Your task to perform on an android device: Open the calendar app, open the side menu, and click the "Day" option Image 0: 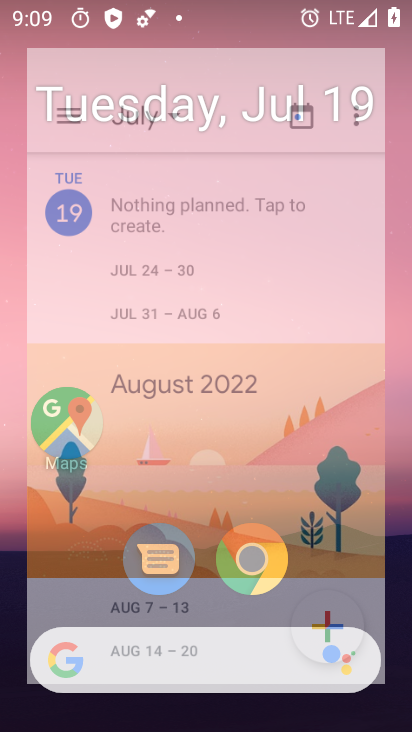
Step 0: drag from (382, 599) to (326, 104)
Your task to perform on an android device: Open the calendar app, open the side menu, and click the "Day" option Image 1: 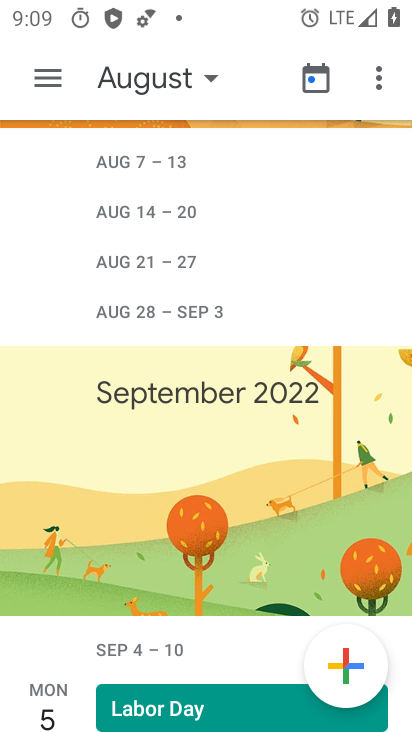
Step 1: press home button
Your task to perform on an android device: Open the calendar app, open the side menu, and click the "Day" option Image 2: 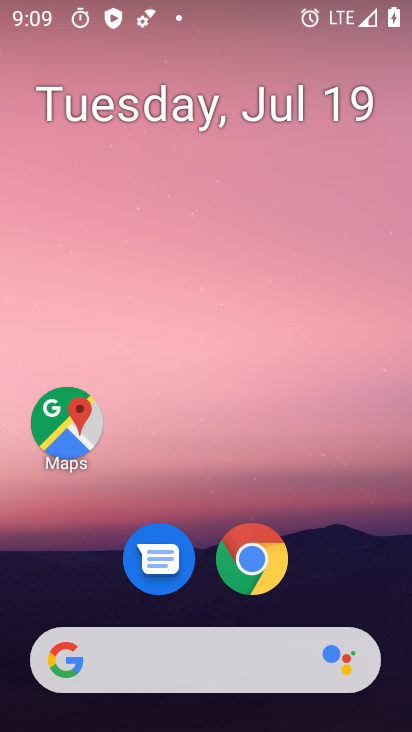
Step 2: drag from (394, 568) to (328, 123)
Your task to perform on an android device: Open the calendar app, open the side menu, and click the "Day" option Image 3: 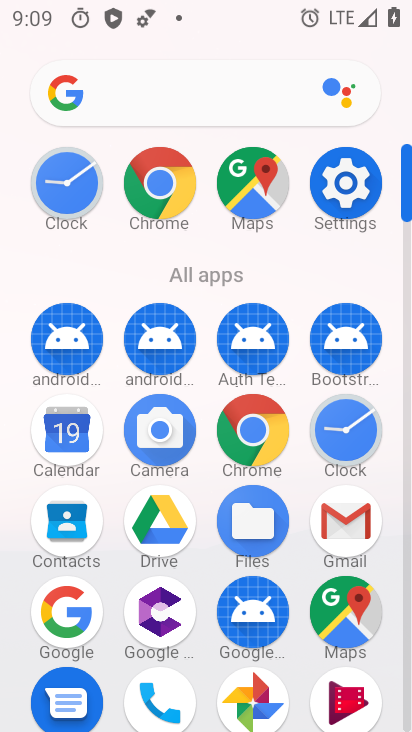
Step 3: click (64, 441)
Your task to perform on an android device: Open the calendar app, open the side menu, and click the "Day" option Image 4: 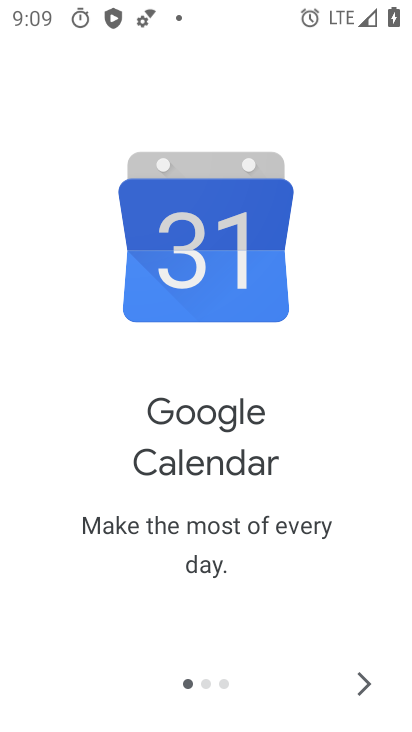
Step 4: click (368, 689)
Your task to perform on an android device: Open the calendar app, open the side menu, and click the "Day" option Image 5: 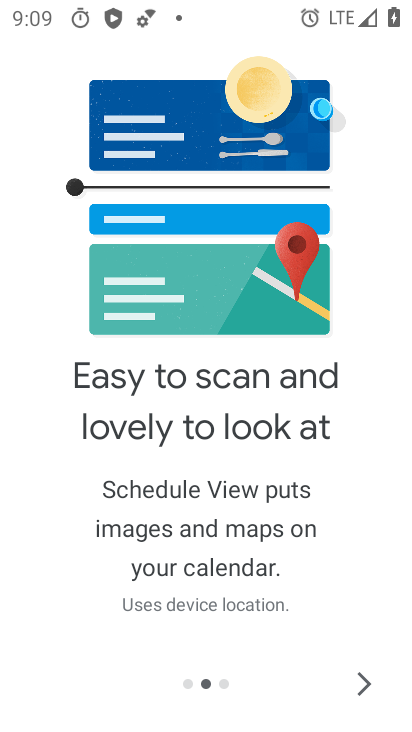
Step 5: click (368, 689)
Your task to perform on an android device: Open the calendar app, open the side menu, and click the "Day" option Image 6: 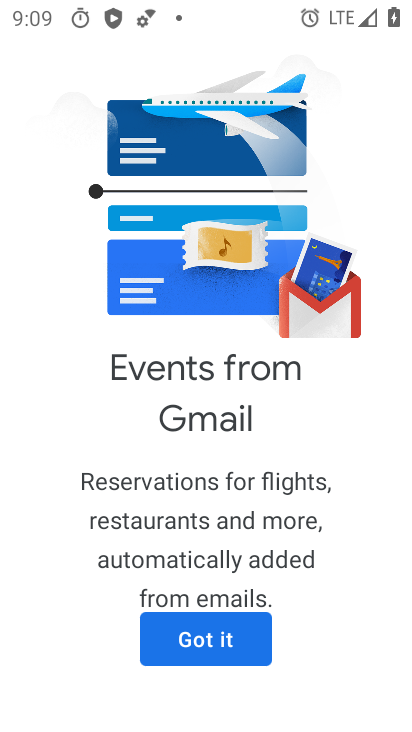
Step 6: click (252, 648)
Your task to perform on an android device: Open the calendar app, open the side menu, and click the "Day" option Image 7: 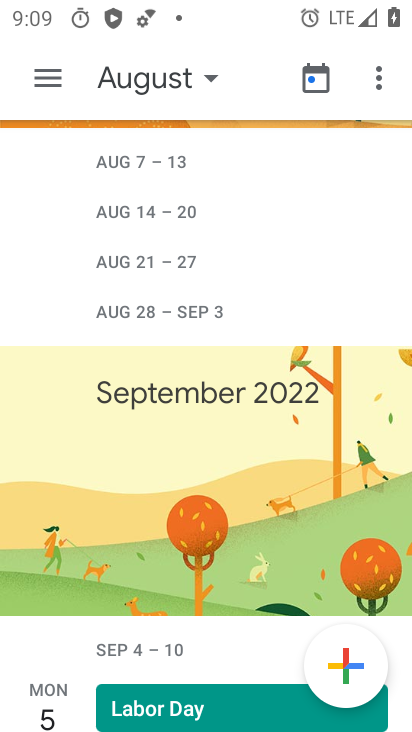
Step 7: click (252, 648)
Your task to perform on an android device: Open the calendar app, open the side menu, and click the "Day" option Image 8: 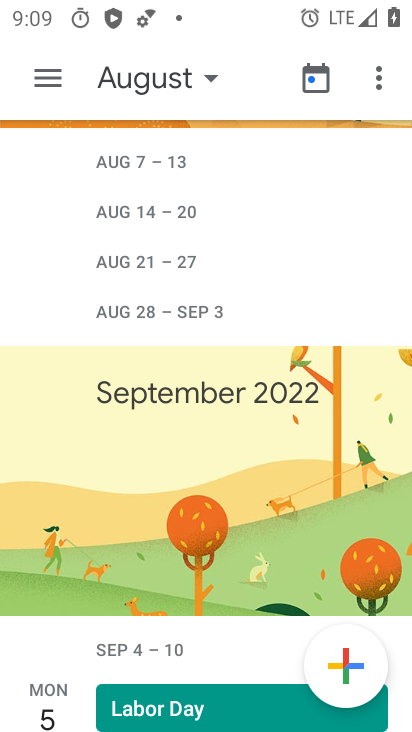
Step 8: click (46, 67)
Your task to perform on an android device: Open the calendar app, open the side menu, and click the "Day" option Image 9: 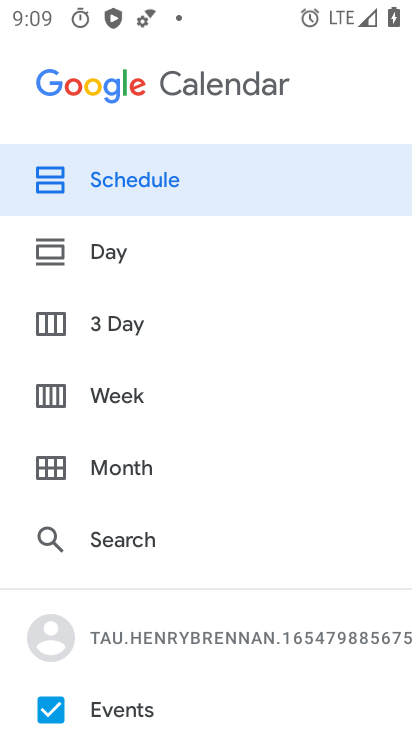
Step 9: click (83, 245)
Your task to perform on an android device: Open the calendar app, open the side menu, and click the "Day" option Image 10: 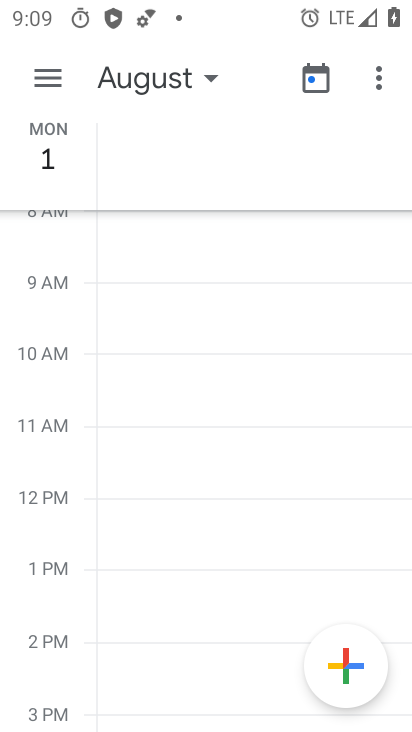
Step 10: task complete